Your task to perform on an android device: add a label to a message in the gmail app Image 0: 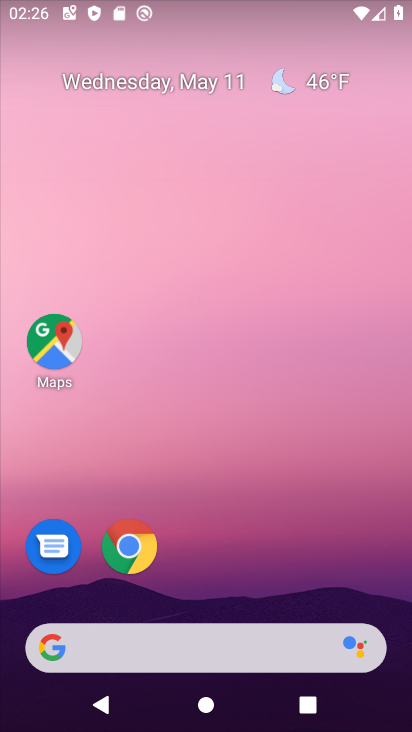
Step 0: drag from (232, 376) to (291, 91)
Your task to perform on an android device: add a label to a message in the gmail app Image 1: 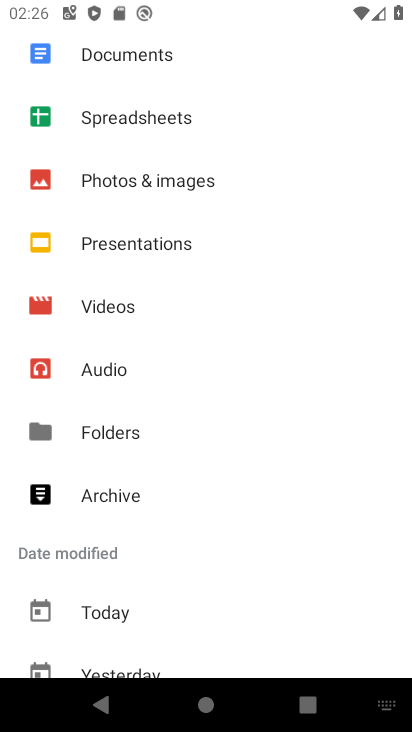
Step 1: press home button
Your task to perform on an android device: add a label to a message in the gmail app Image 2: 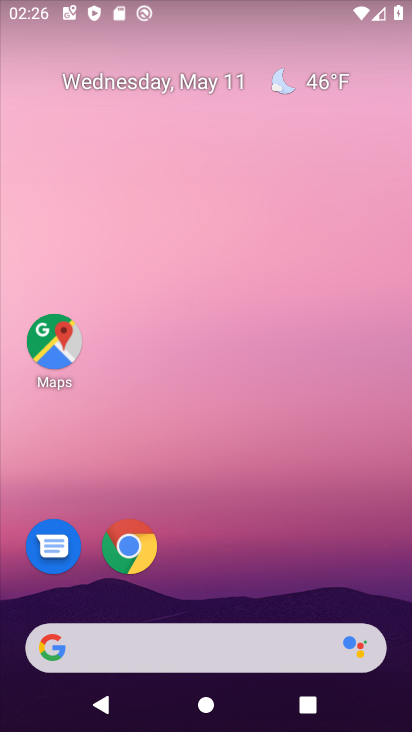
Step 2: drag from (191, 575) to (214, 138)
Your task to perform on an android device: add a label to a message in the gmail app Image 3: 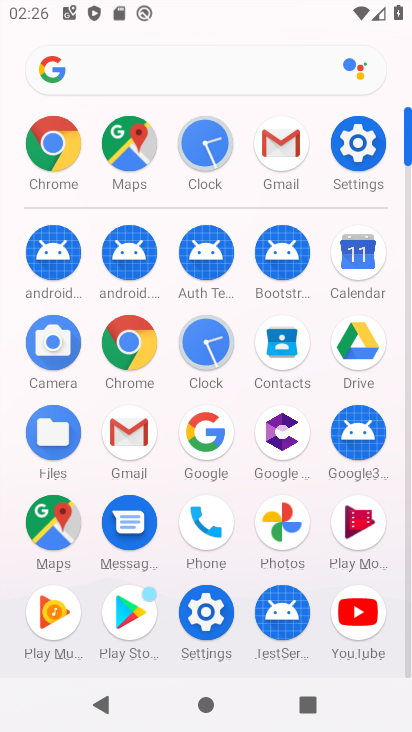
Step 3: click (132, 445)
Your task to perform on an android device: add a label to a message in the gmail app Image 4: 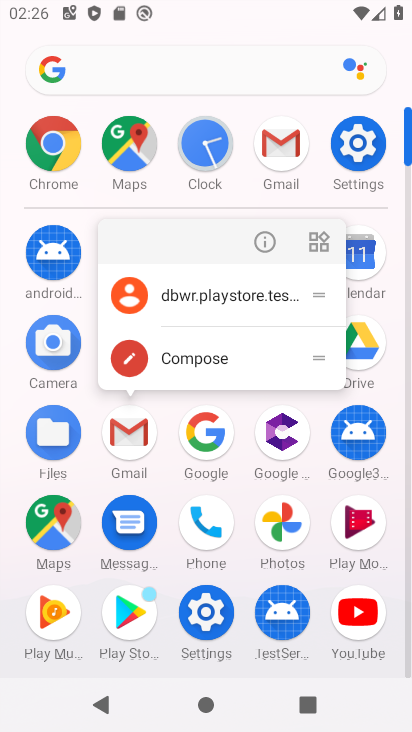
Step 4: click (267, 250)
Your task to perform on an android device: add a label to a message in the gmail app Image 5: 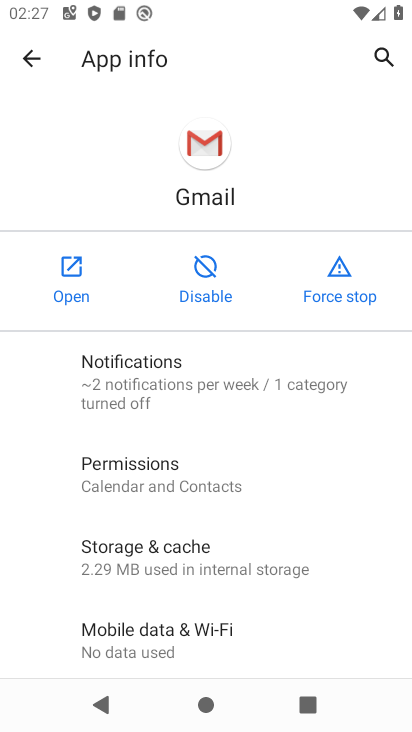
Step 5: click (66, 284)
Your task to perform on an android device: add a label to a message in the gmail app Image 6: 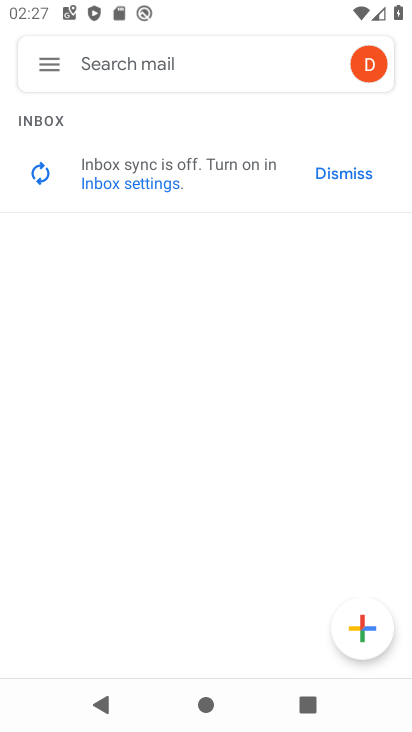
Step 6: task complete